Your task to perform on an android device: Go to display settings Image 0: 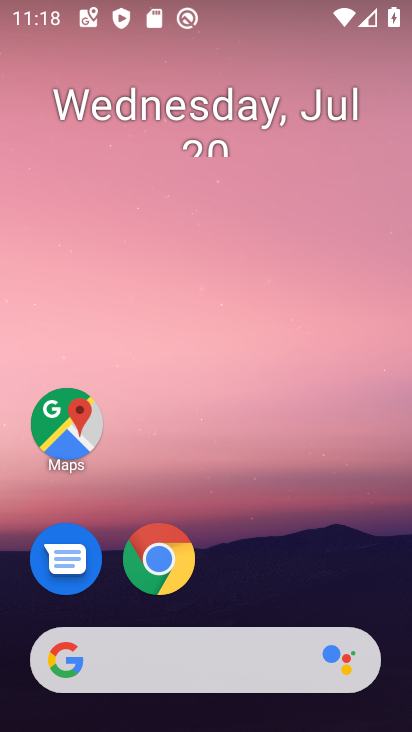
Step 0: drag from (237, 532) to (313, 49)
Your task to perform on an android device: Go to display settings Image 1: 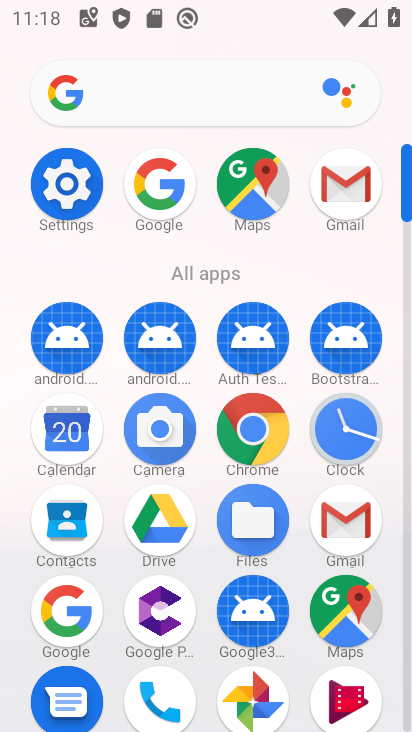
Step 1: click (74, 224)
Your task to perform on an android device: Go to display settings Image 2: 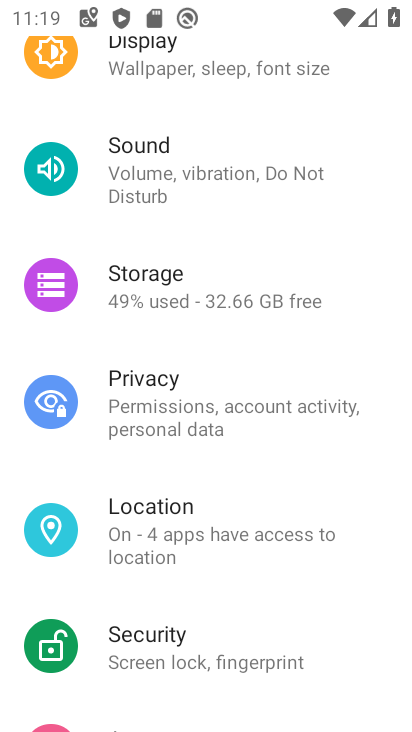
Step 2: drag from (136, 358) to (136, 614)
Your task to perform on an android device: Go to display settings Image 3: 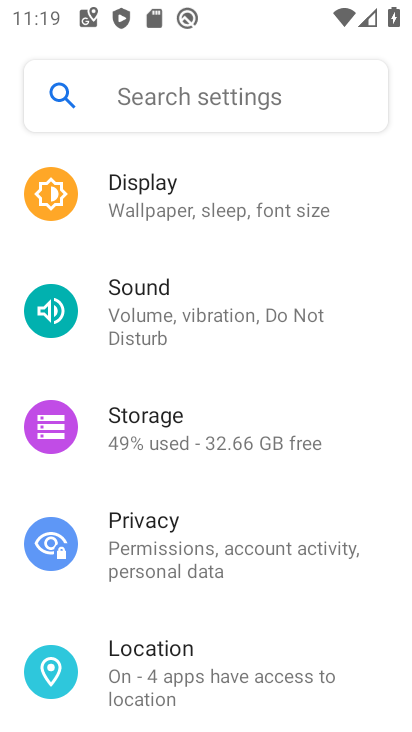
Step 3: click (186, 204)
Your task to perform on an android device: Go to display settings Image 4: 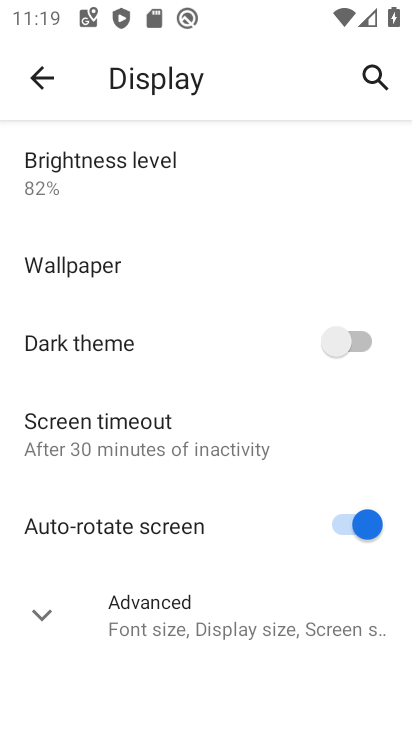
Step 4: task complete